Your task to perform on an android device: delete location history Image 0: 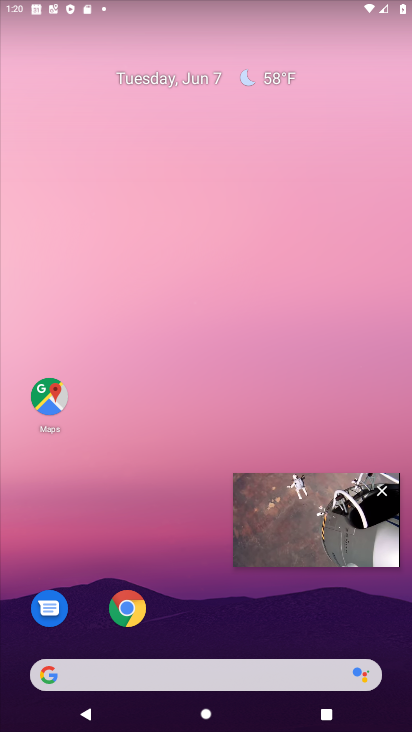
Step 0: click (275, 572)
Your task to perform on an android device: delete location history Image 1: 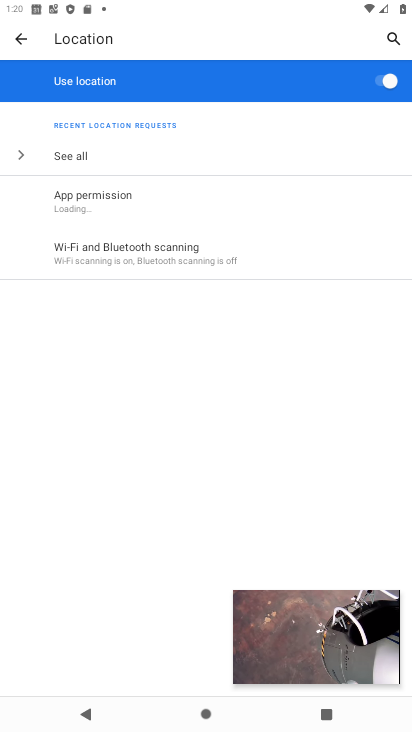
Step 1: click (338, 636)
Your task to perform on an android device: delete location history Image 2: 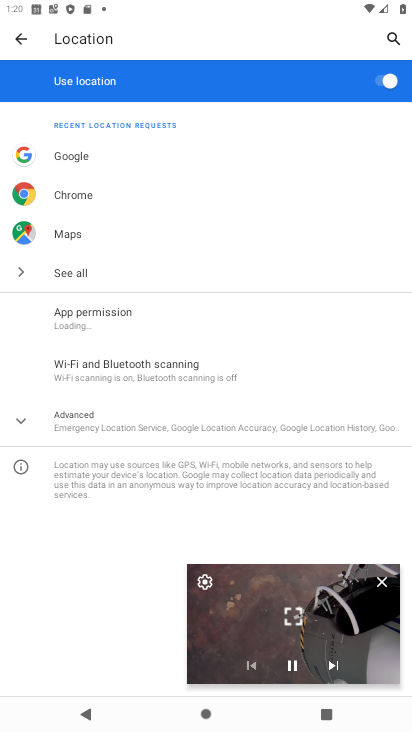
Step 2: click (379, 573)
Your task to perform on an android device: delete location history Image 3: 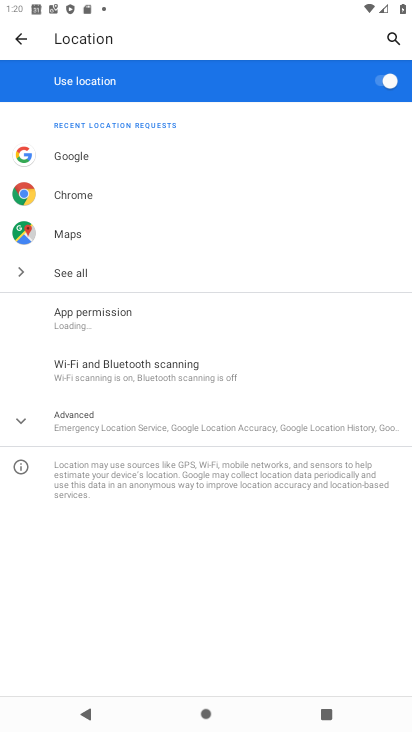
Step 3: press home button
Your task to perform on an android device: delete location history Image 4: 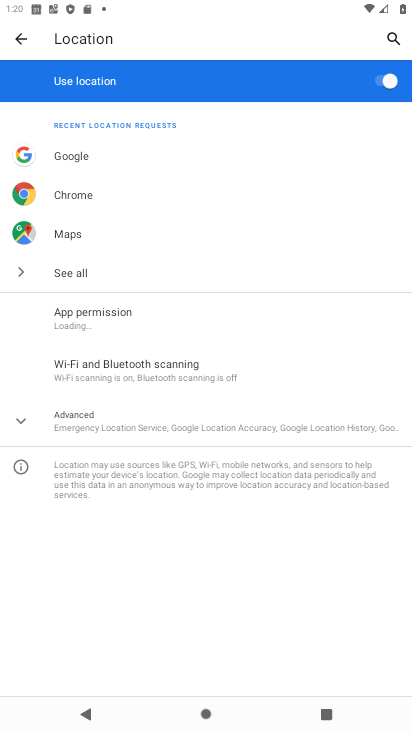
Step 4: press home button
Your task to perform on an android device: delete location history Image 5: 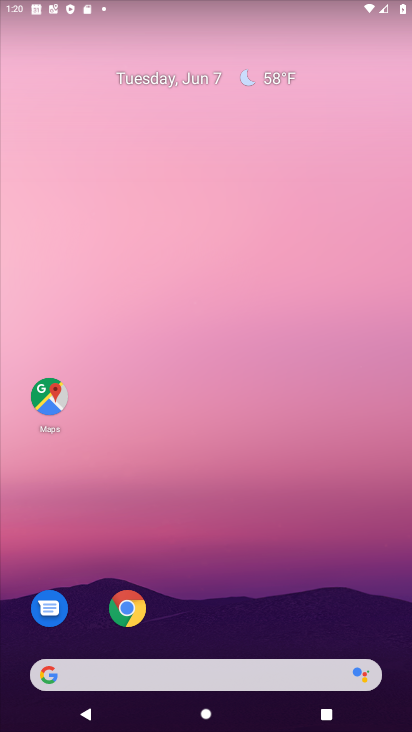
Step 5: click (45, 398)
Your task to perform on an android device: delete location history Image 6: 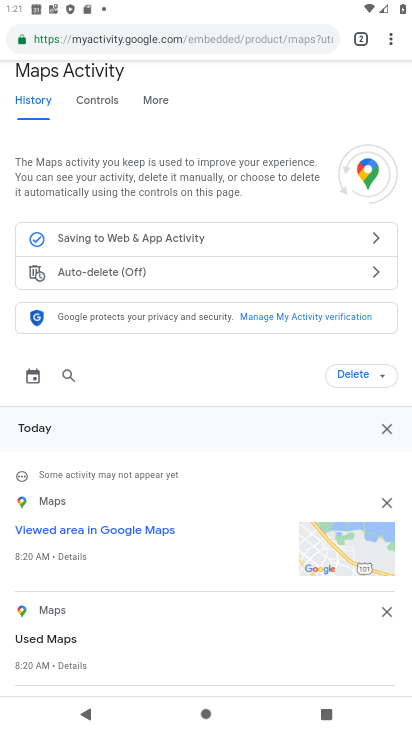
Step 6: click (369, 382)
Your task to perform on an android device: delete location history Image 7: 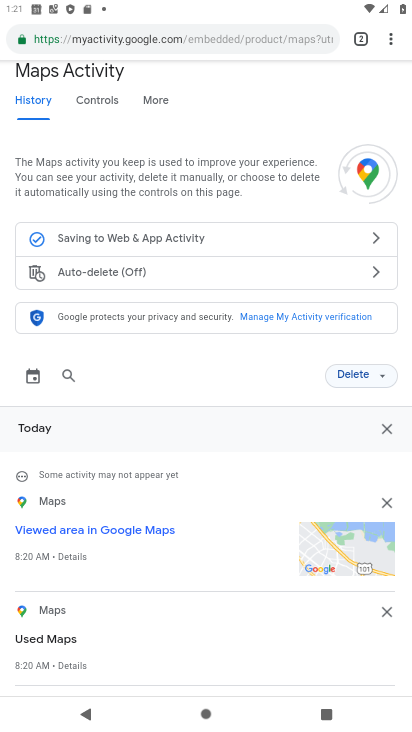
Step 7: click (369, 377)
Your task to perform on an android device: delete location history Image 8: 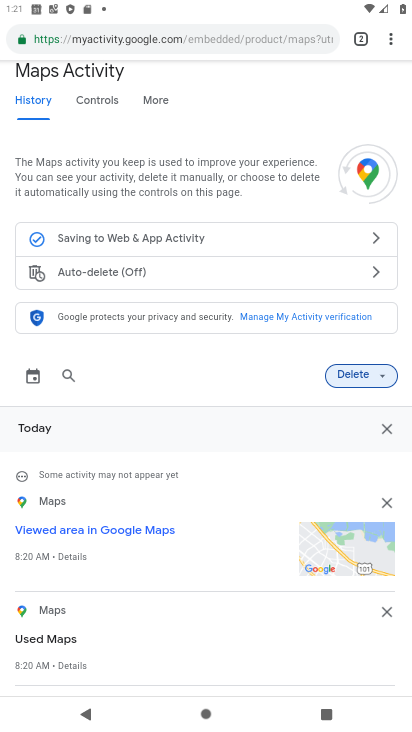
Step 8: click (383, 377)
Your task to perform on an android device: delete location history Image 9: 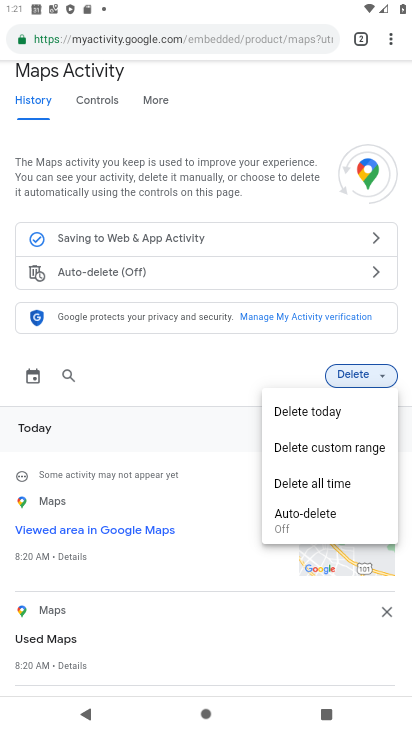
Step 9: click (330, 486)
Your task to perform on an android device: delete location history Image 10: 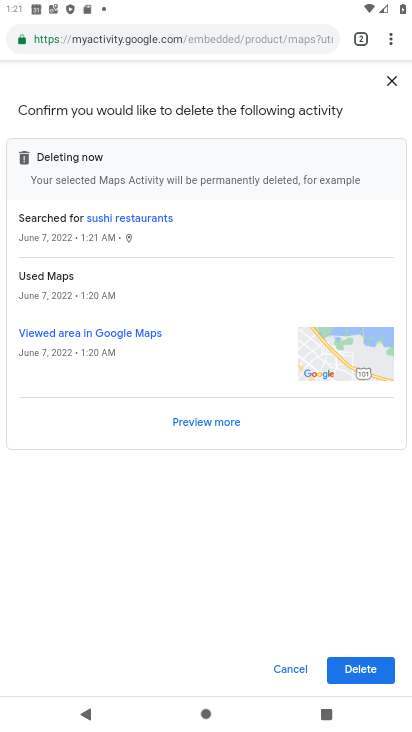
Step 10: click (385, 666)
Your task to perform on an android device: delete location history Image 11: 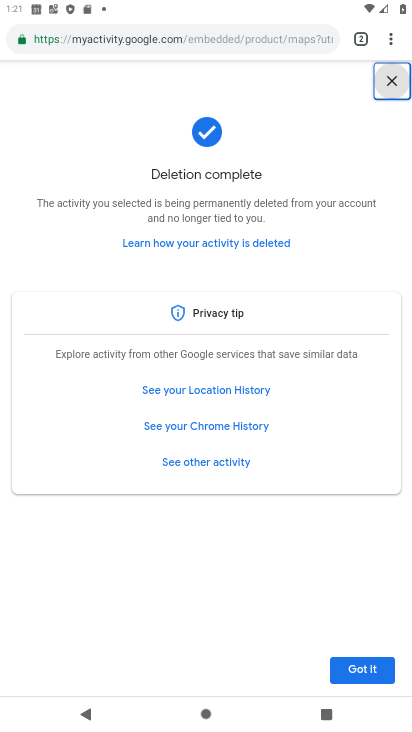
Step 11: click (355, 675)
Your task to perform on an android device: delete location history Image 12: 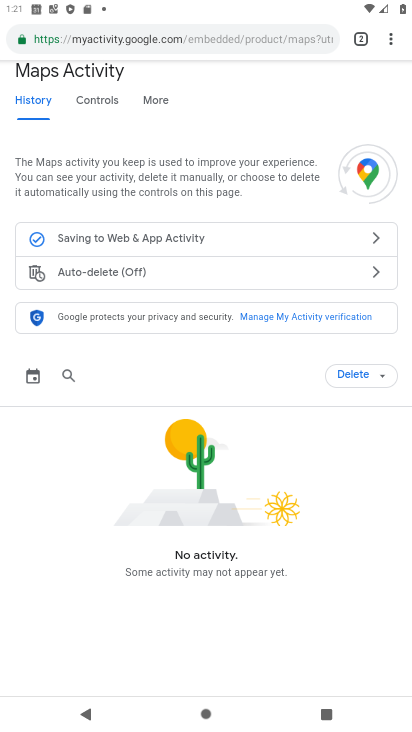
Step 12: task complete